Your task to perform on an android device: find snoozed emails in the gmail app Image 0: 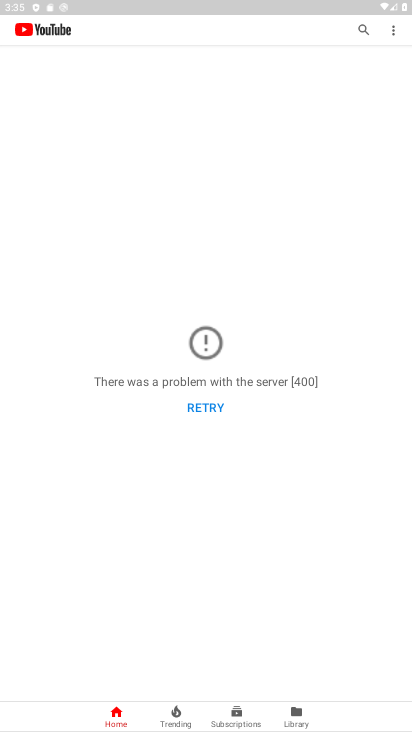
Step 0: press back button
Your task to perform on an android device: find snoozed emails in the gmail app Image 1: 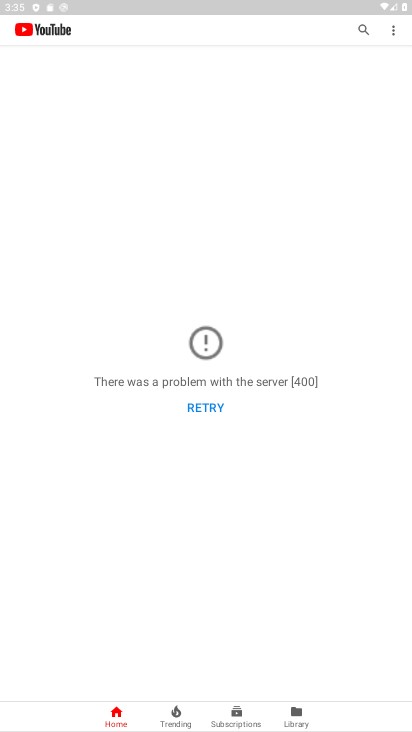
Step 1: press back button
Your task to perform on an android device: find snoozed emails in the gmail app Image 2: 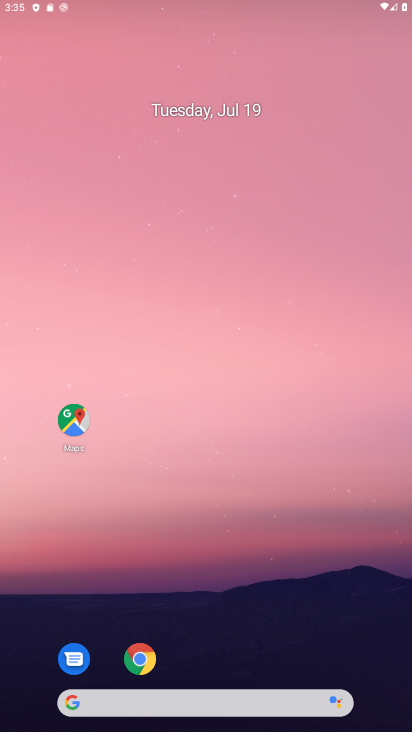
Step 2: press back button
Your task to perform on an android device: find snoozed emails in the gmail app Image 3: 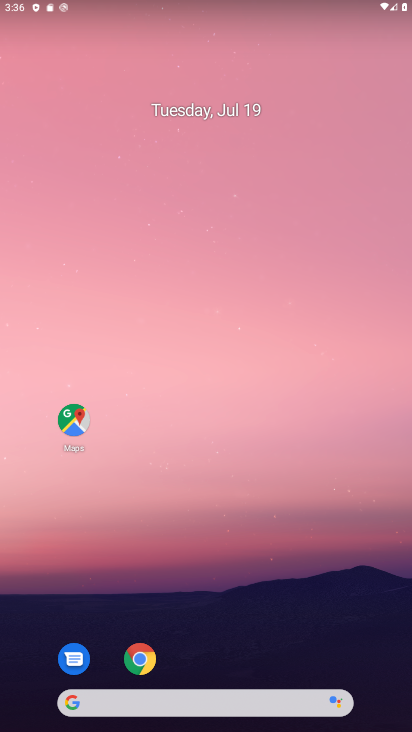
Step 3: drag from (256, 664) to (122, 92)
Your task to perform on an android device: find snoozed emails in the gmail app Image 4: 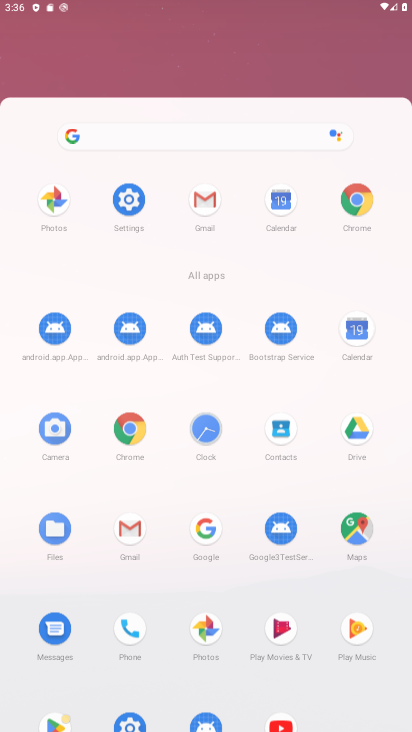
Step 4: drag from (206, 460) to (203, 143)
Your task to perform on an android device: find snoozed emails in the gmail app Image 5: 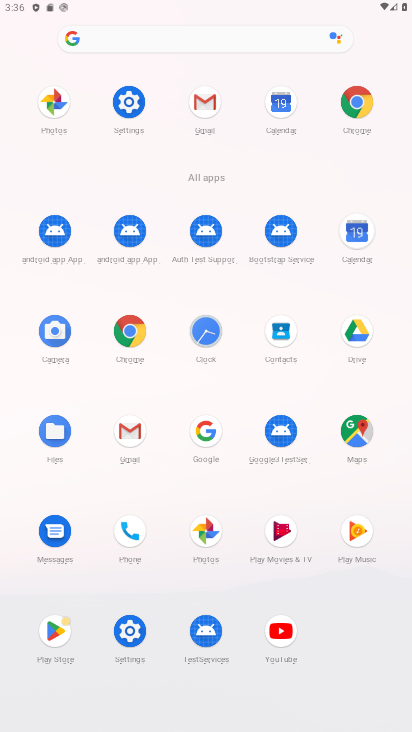
Step 5: click (140, 434)
Your task to perform on an android device: find snoozed emails in the gmail app Image 6: 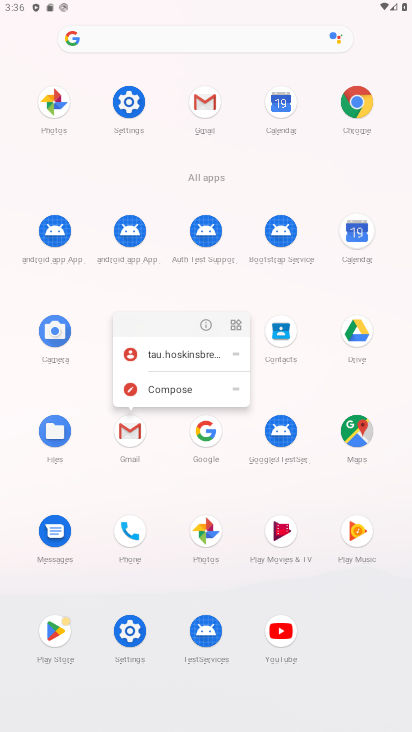
Step 6: click (135, 433)
Your task to perform on an android device: find snoozed emails in the gmail app Image 7: 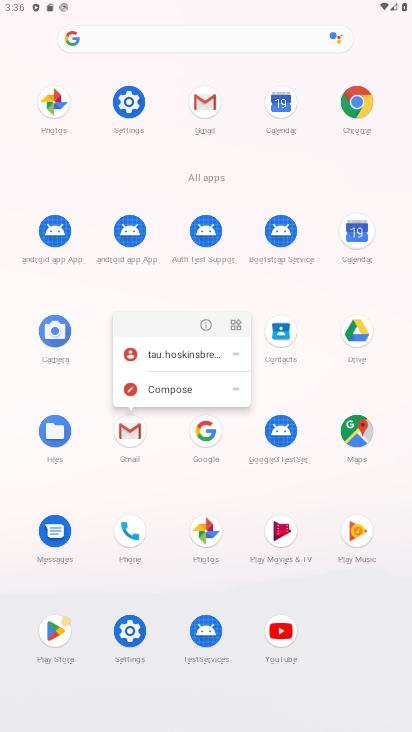
Step 7: click (135, 433)
Your task to perform on an android device: find snoozed emails in the gmail app Image 8: 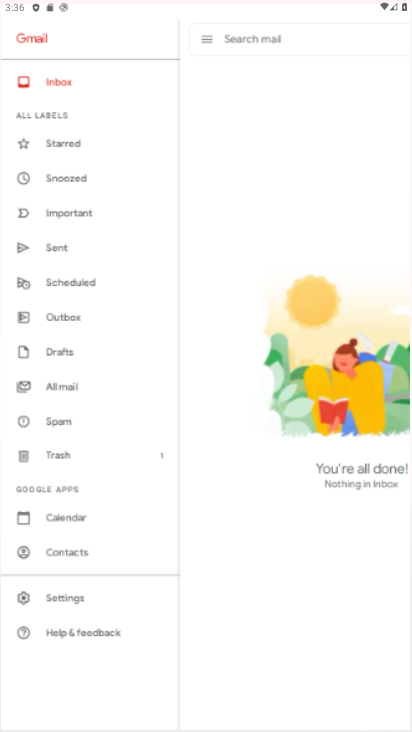
Step 8: click (122, 430)
Your task to perform on an android device: find snoozed emails in the gmail app Image 9: 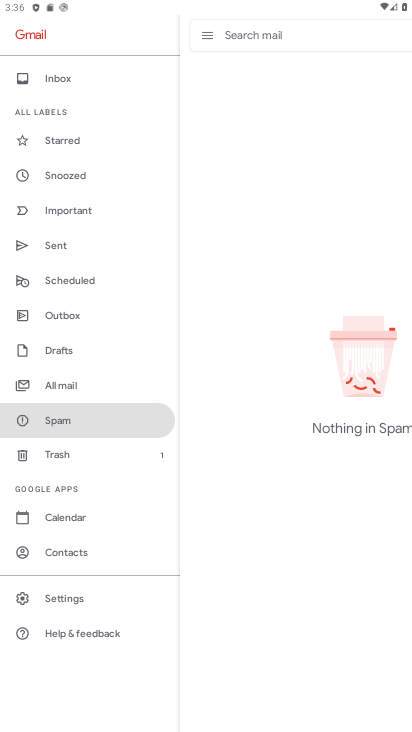
Step 9: click (59, 174)
Your task to perform on an android device: find snoozed emails in the gmail app Image 10: 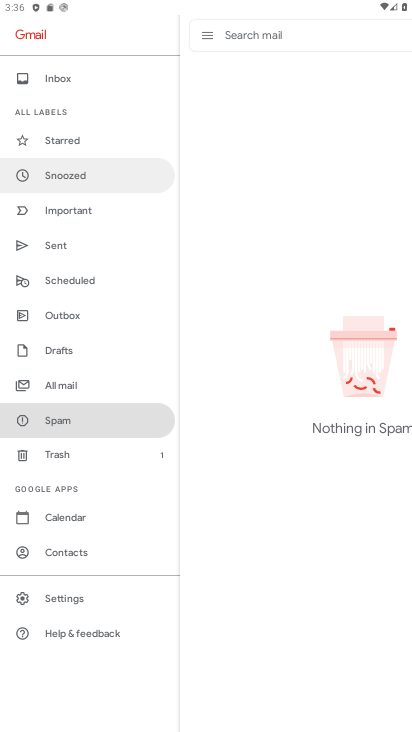
Step 10: click (59, 174)
Your task to perform on an android device: find snoozed emails in the gmail app Image 11: 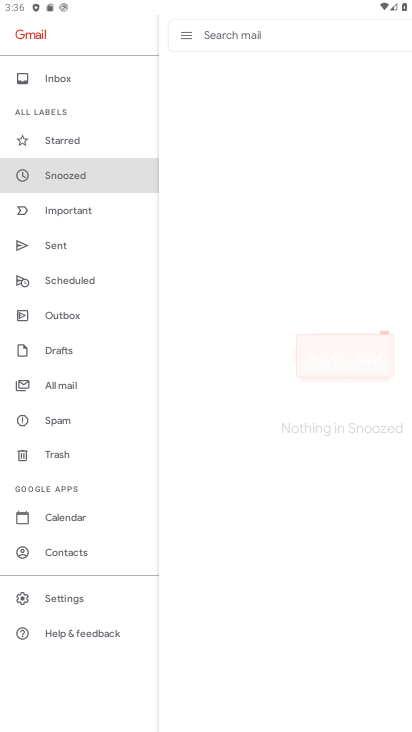
Step 11: click (56, 174)
Your task to perform on an android device: find snoozed emails in the gmail app Image 12: 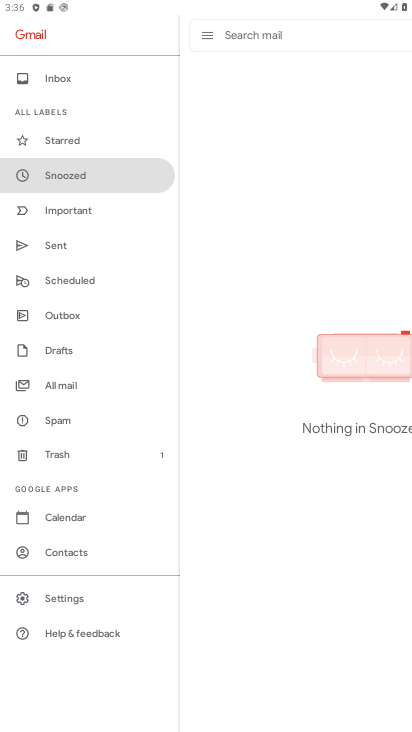
Step 12: click (52, 174)
Your task to perform on an android device: find snoozed emails in the gmail app Image 13: 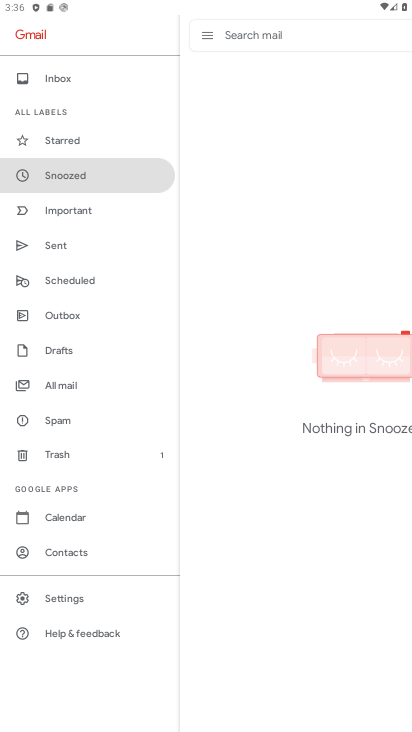
Step 13: task complete